Your task to perform on an android device: Search for Italian restaurants on Maps Image 0: 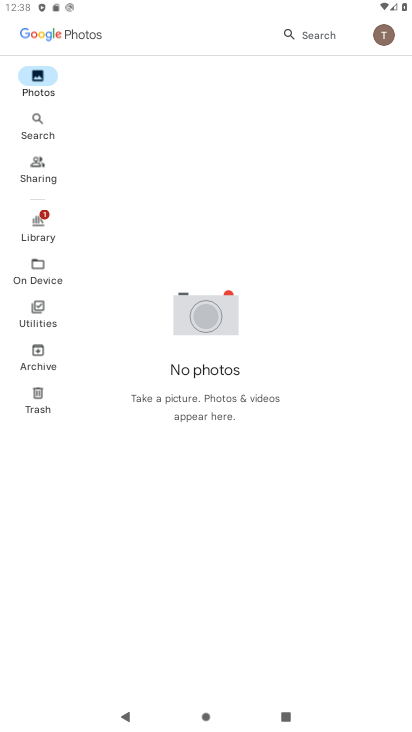
Step 0: press home button
Your task to perform on an android device: Search for Italian restaurants on Maps Image 1: 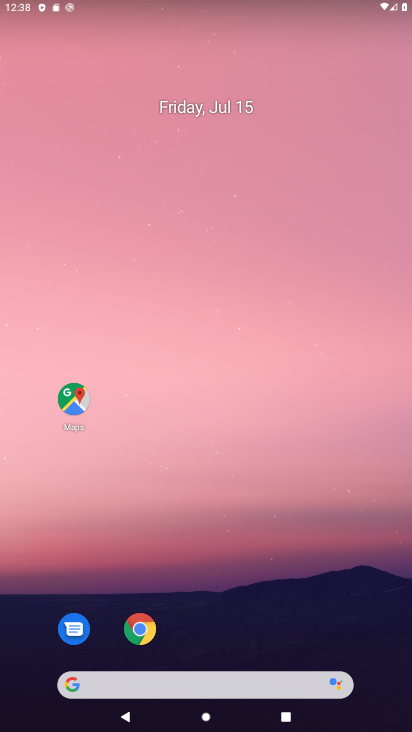
Step 1: drag from (305, 623) to (303, 124)
Your task to perform on an android device: Search for Italian restaurants on Maps Image 2: 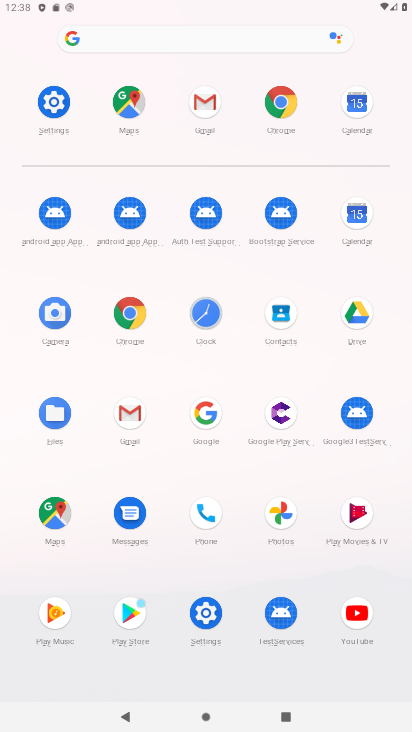
Step 2: click (132, 105)
Your task to perform on an android device: Search for Italian restaurants on Maps Image 3: 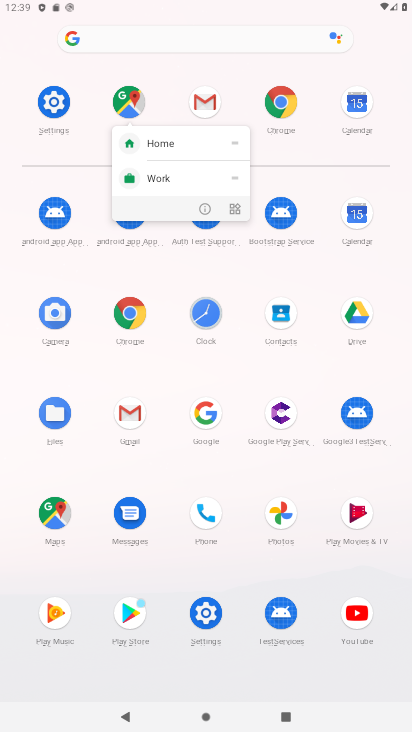
Step 3: click (118, 102)
Your task to perform on an android device: Search for Italian restaurants on Maps Image 4: 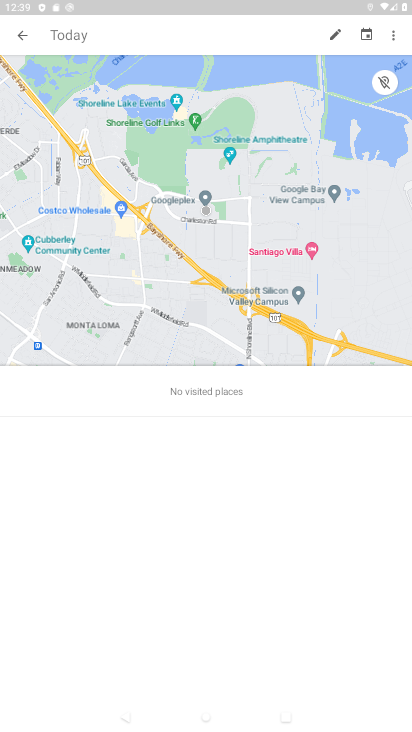
Step 4: click (28, 33)
Your task to perform on an android device: Search for Italian restaurants on Maps Image 5: 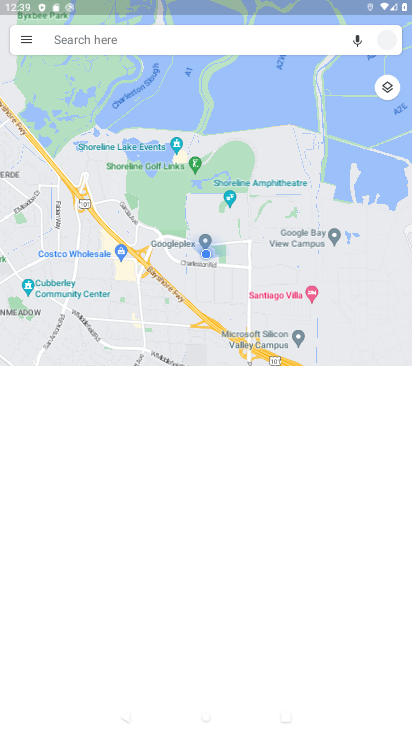
Step 5: click (200, 42)
Your task to perform on an android device: Search for Italian restaurants on Maps Image 6: 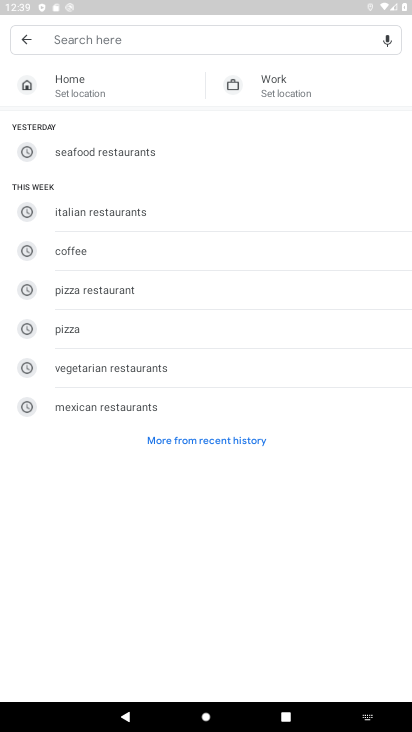
Step 6: type "Ita"
Your task to perform on an android device: Search for Italian restaurants on Maps Image 7: 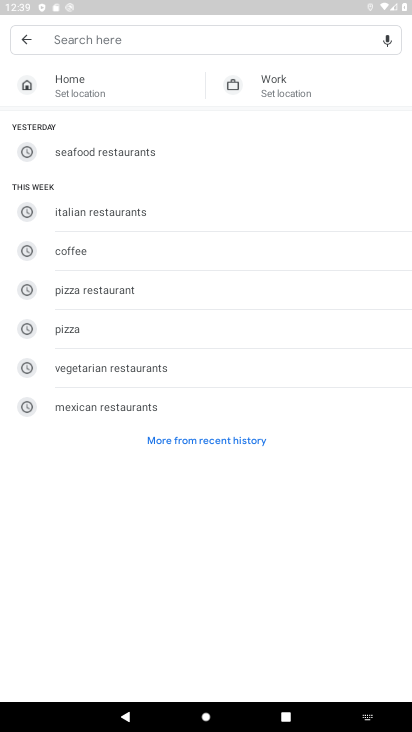
Step 7: click (160, 211)
Your task to perform on an android device: Search for Italian restaurants on Maps Image 8: 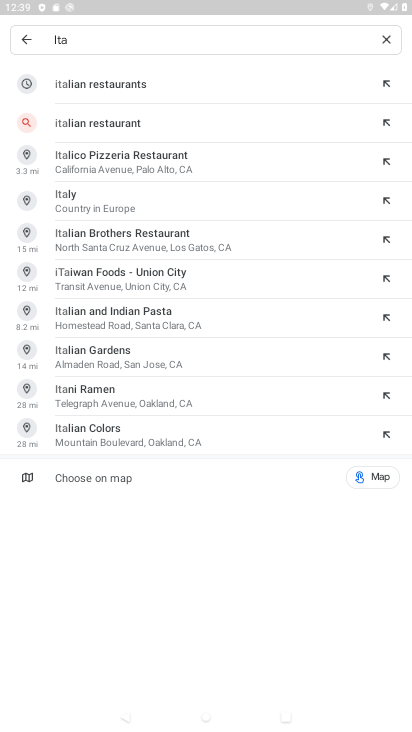
Step 8: click (147, 84)
Your task to perform on an android device: Search for Italian restaurants on Maps Image 9: 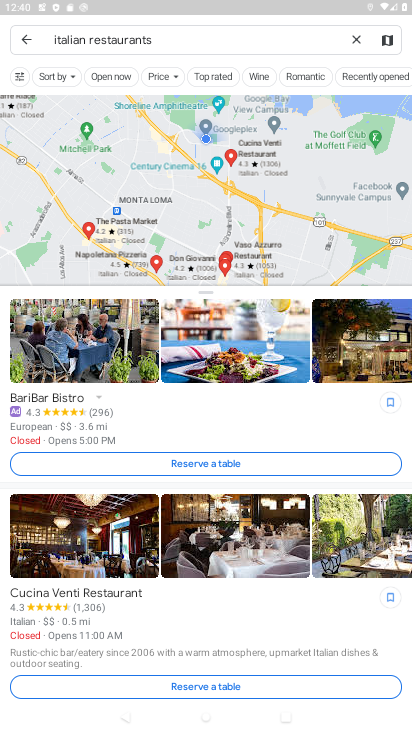
Step 9: task complete